Your task to perform on an android device: set default search engine in the chrome app Image 0: 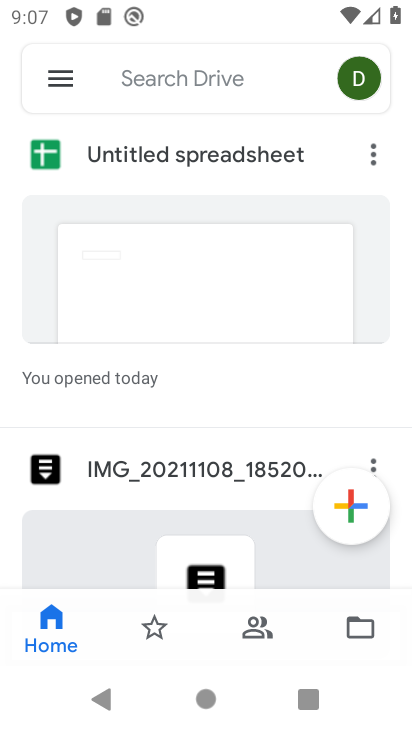
Step 0: press back button
Your task to perform on an android device: set default search engine in the chrome app Image 1: 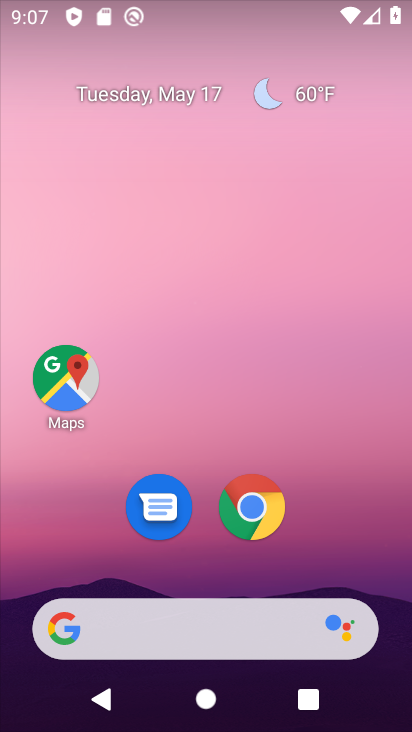
Step 1: drag from (284, 708) to (250, 133)
Your task to perform on an android device: set default search engine in the chrome app Image 2: 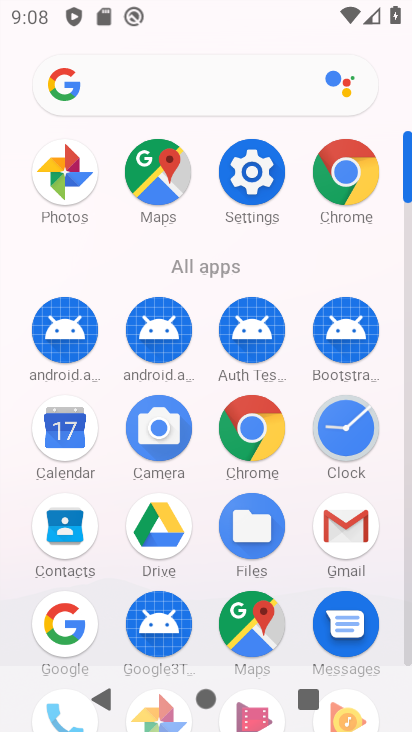
Step 2: click (243, 427)
Your task to perform on an android device: set default search engine in the chrome app Image 3: 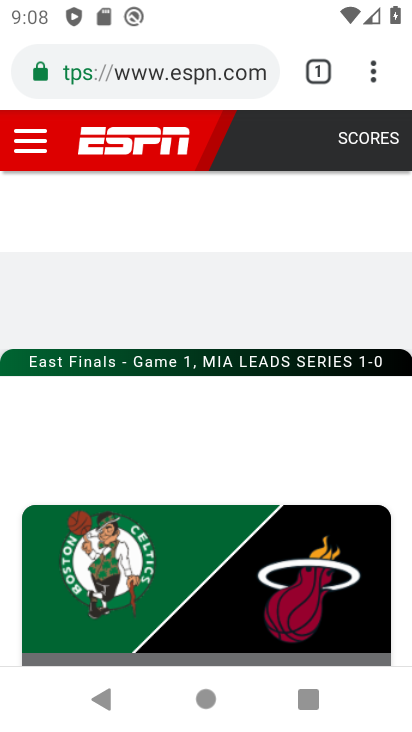
Step 3: click (368, 76)
Your task to perform on an android device: set default search engine in the chrome app Image 4: 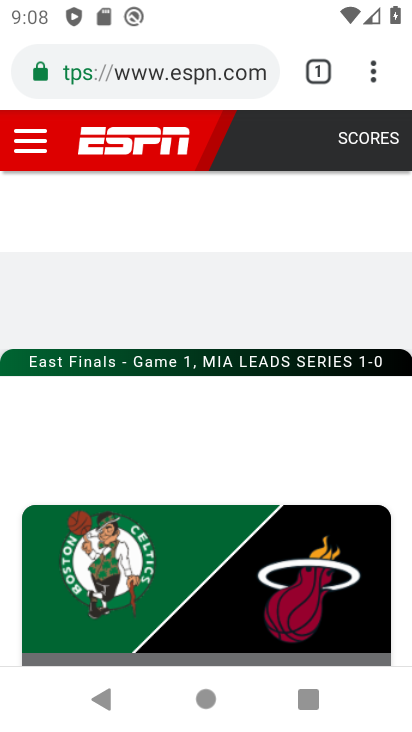
Step 4: drag from (373, 75) to (124, 503)
Your task to perform on an android device: set default search engine in the chrome app Image 5: 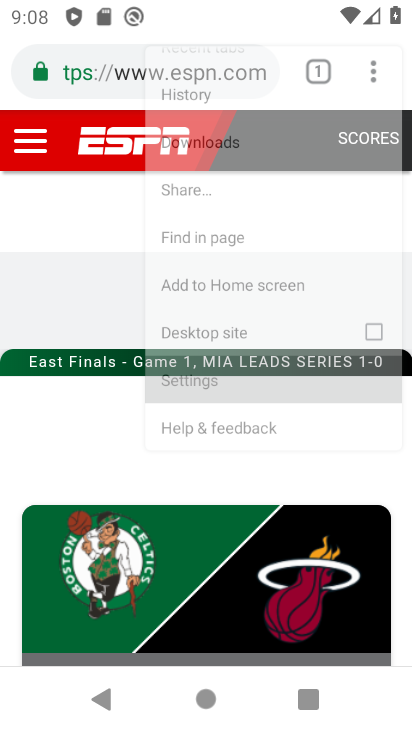
Step 5: click (124, 503)
Your task to perform on an android device: set default search engine in the chrome app Image 6: 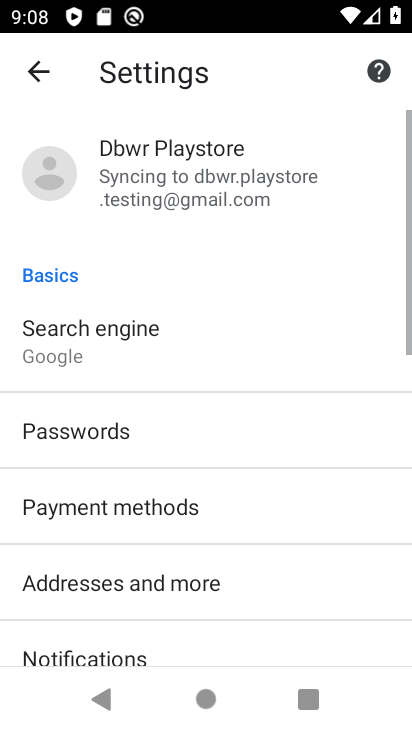
Step 6: click (109, 349)
Your task to perform on an android device: set default search engine in the chrome app Image 7: 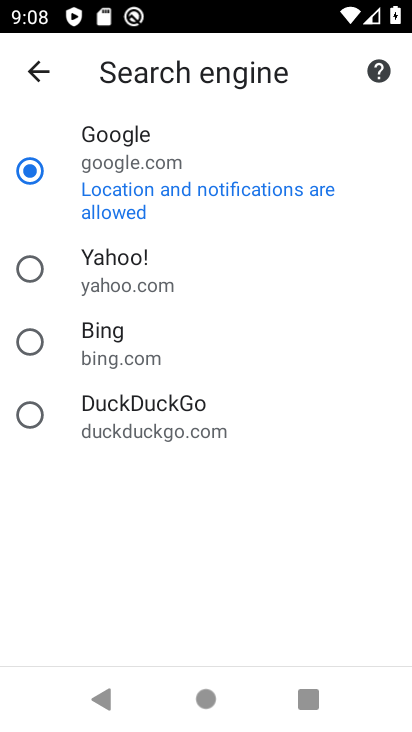
Step 7: click (24, 261)
Your task to perform on an android device: set default search engine in the chrome app Image 8: 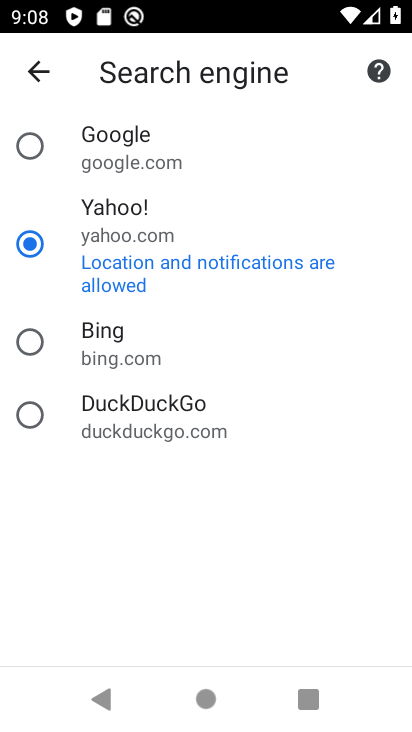
Step 8: task complete